Your task to perform on an android device: create a new album in the google photos Image 0: 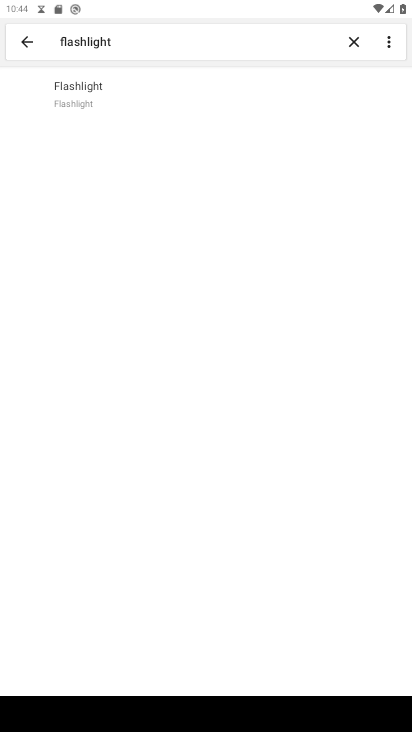
Step 0: press home button
Your task to perform on an android device: create a new album in the google photos Image 1: 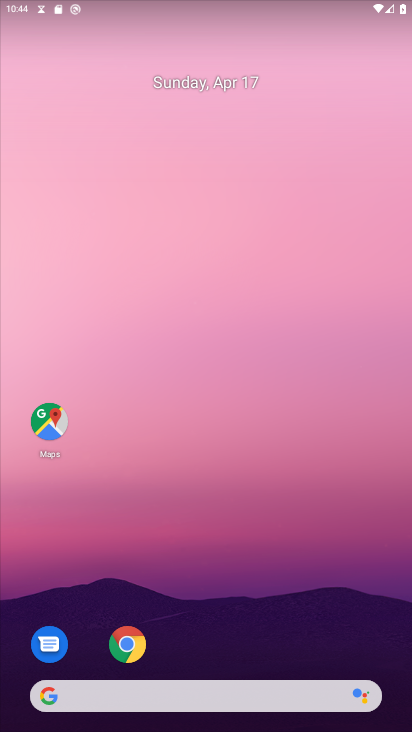
Step 1: drag from (198, 623) to (252, 38)
Your task to perform on an android device: create a new album in the google photos Image 2: 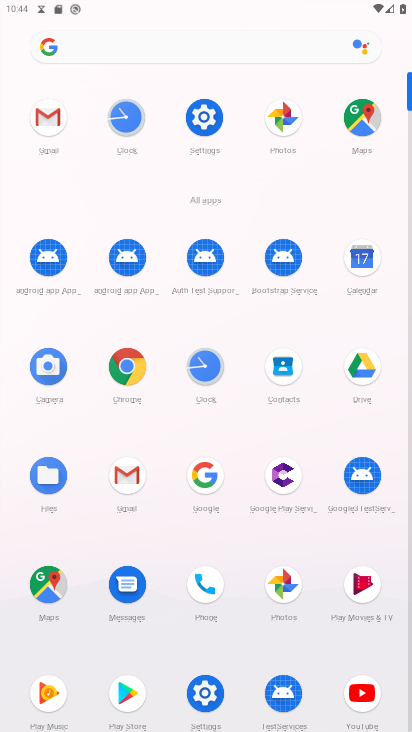
Step 2: click (295, 582)
Your task to perform on an android device: create a new album in the google photos Image 3: 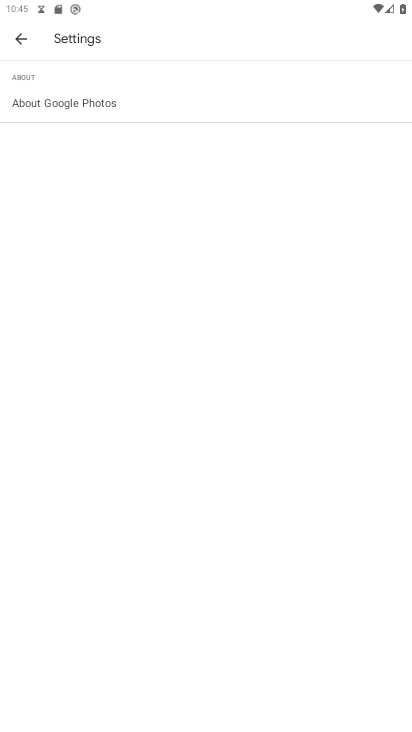
Step 3: click (14, 40)
Your task to perform on an android device: create a new album in the google photos Image 4: 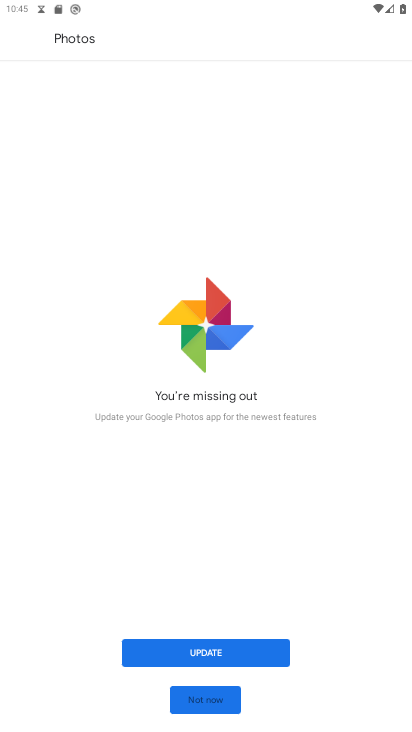
Step 4: click (209, 693)
Your task to perform on an android device: create a new album in the google photos Image 5: 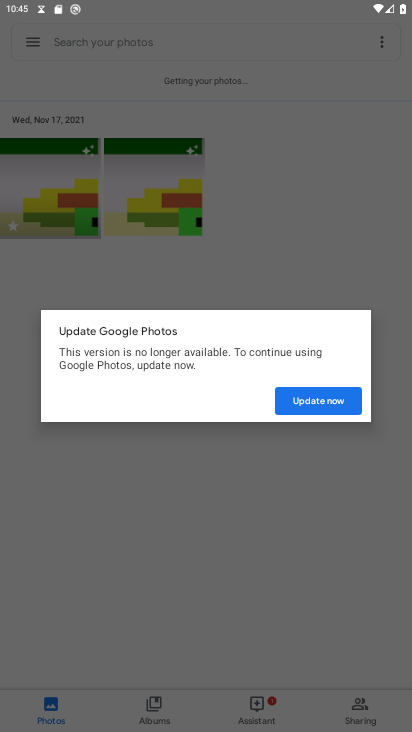
Step 5: click (160, 566)
Your task to perform on an android device: create a new album in the google photos Image 6: 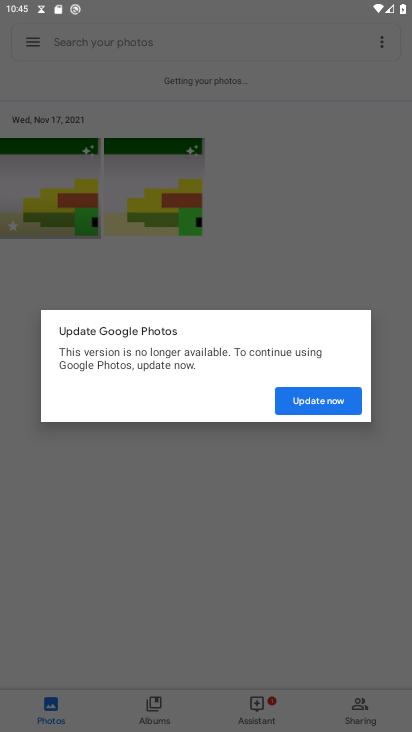
Step 6: click (327, 401)
Your task to perform on an android device: create a new album in the google photos Image 7: 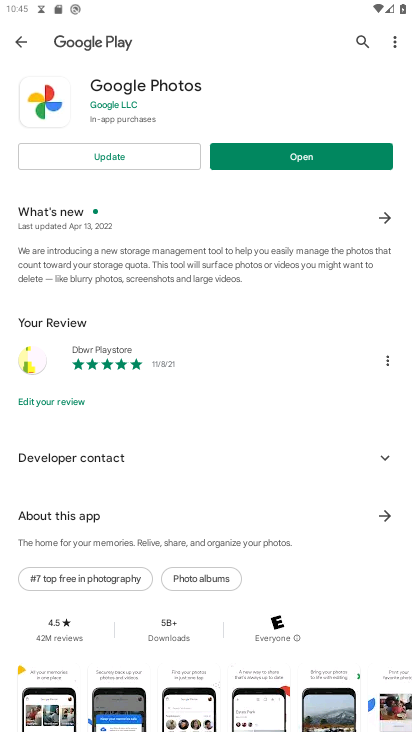
Step 7: click (133, 160)
Your task to perform on an android device: create a new album in the google photos Image 8: 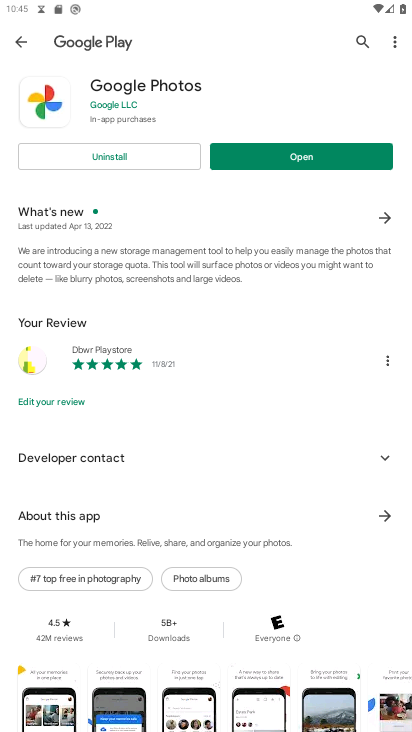
Step 8: click (265, 158)
Your task to perform on an android device: create a new album in the google photos Image 9: 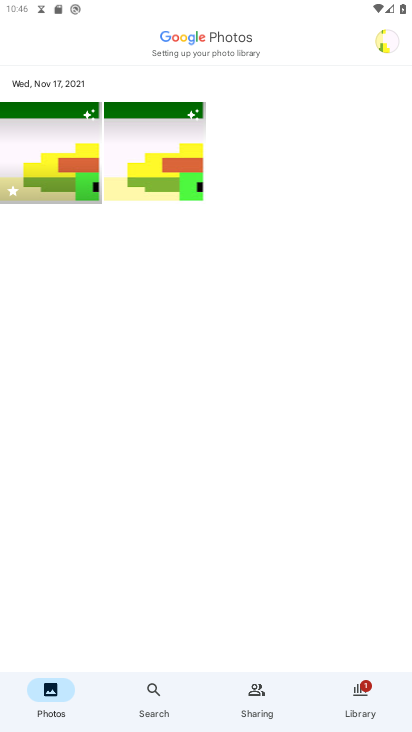
Step 9: click (367, 694)
Your task to perform on an android device: create a new album in the google photos Image 10: 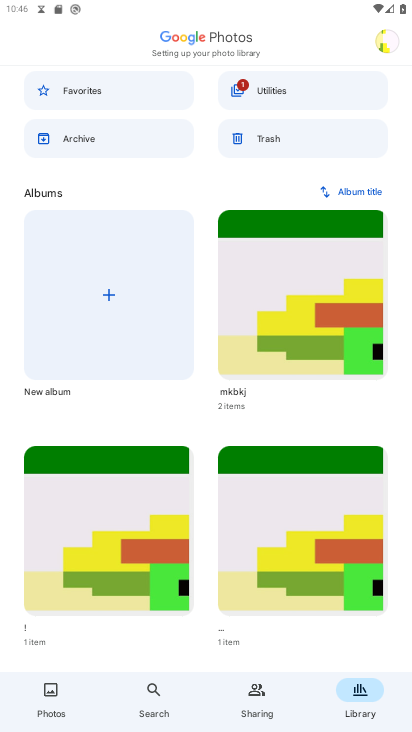
Step 10: click (109, 301)
Your task to perform on an android device: create a new album in the google photos Image 11: 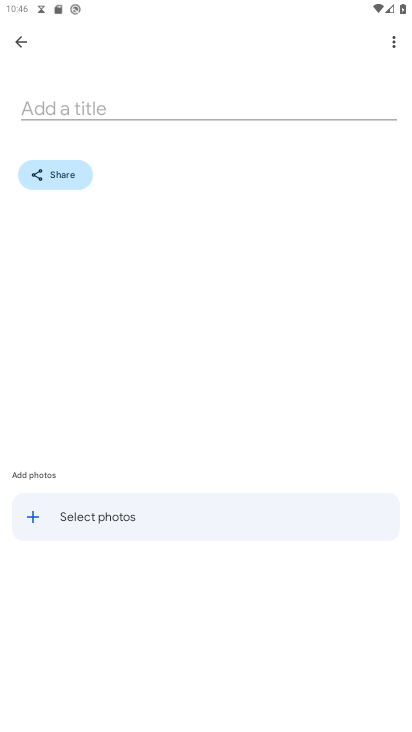
Step 11: click (172, 107)
Your task to perform on an android device: create a new album in the google photos Image 12: 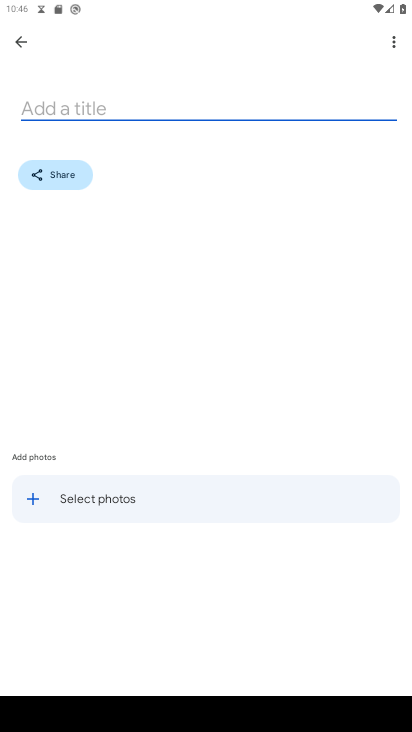
Step 12: type "blueberry"
Your task to perform on an android device: create a new album in the google photos Image 13: 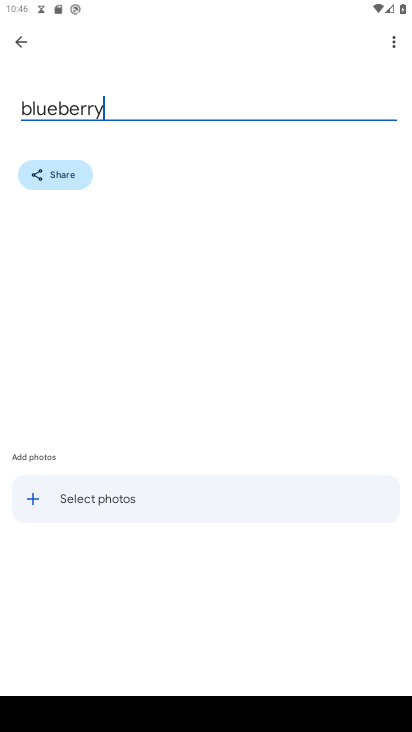
Step 13: click (59, 499)
Your task to perform on an android device: create a new album in the google photos Image 14: 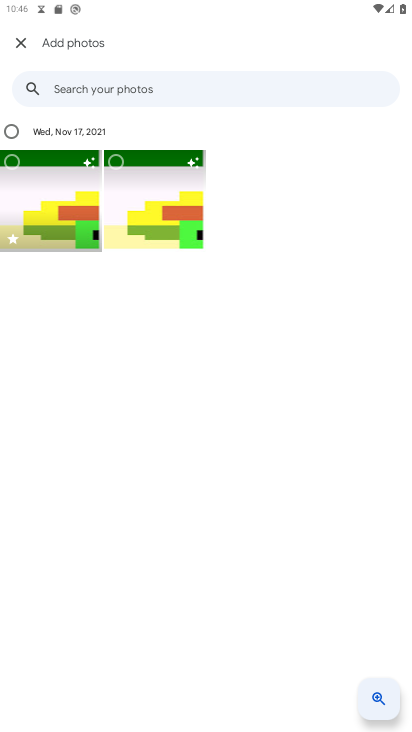
Step 14: click (57, 183)
Your task to perform on an android device: create a new album in the google photos Image 15: 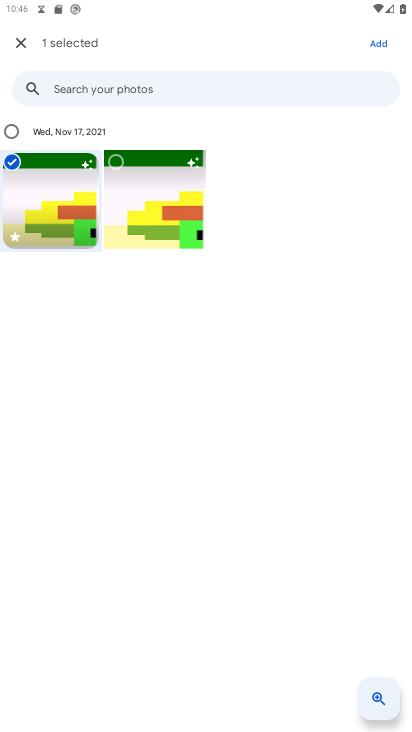
Step 15: click (128, 177)
Your task to perform on an android device: create a new album in the google photos Image 16: 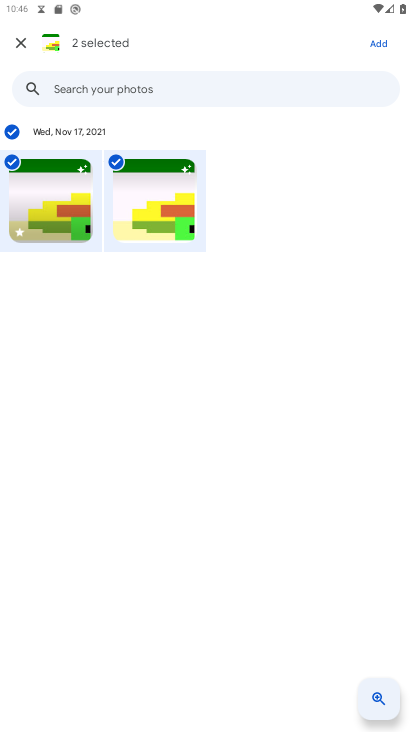
Step 16: click (387, 41)
Your task to perform on an android device: create a new album in the google photos Image 17: 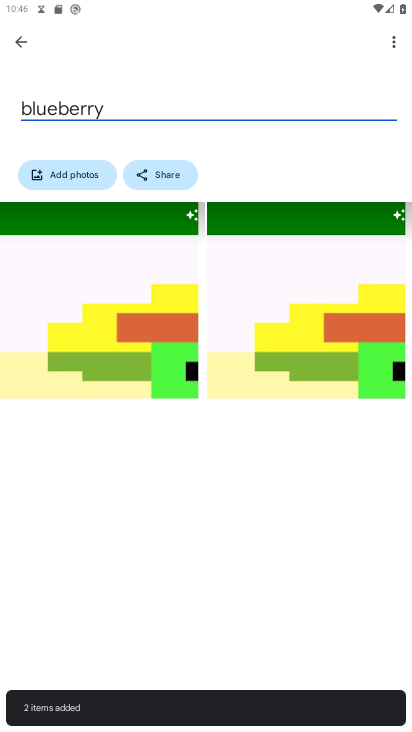
Step 17: task complete